Your task to perform on an android device: What's the news in Japan? Image 0: 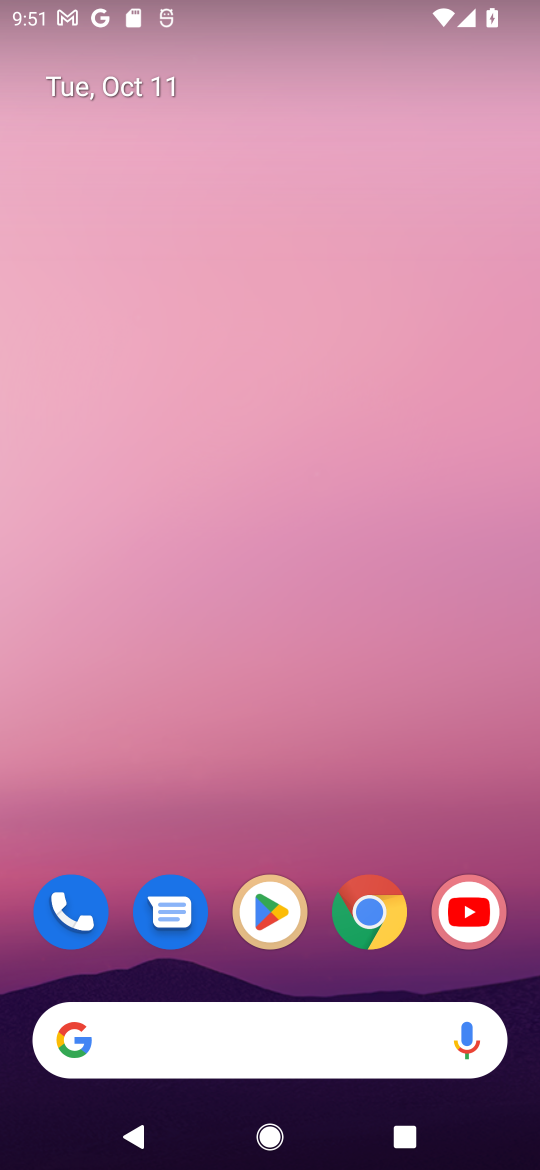
Step 0: click (363, 909)
Your task to perform on an android device: What's the news in Japan? Image 1: 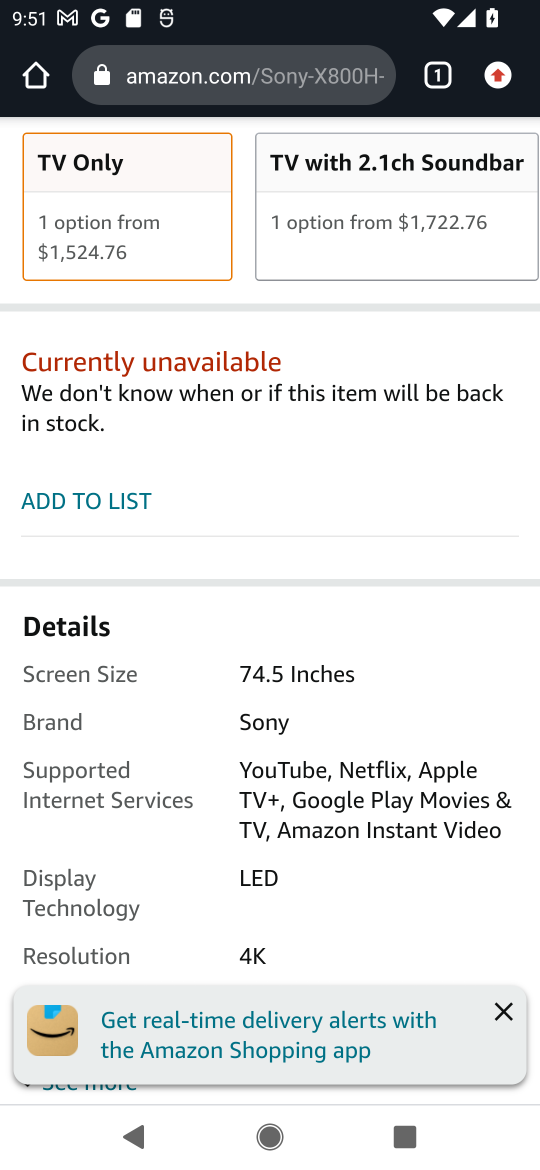
Step 1: click (231, 57)
Your task to perform on an android device: What's the news in Japan? Image 2: 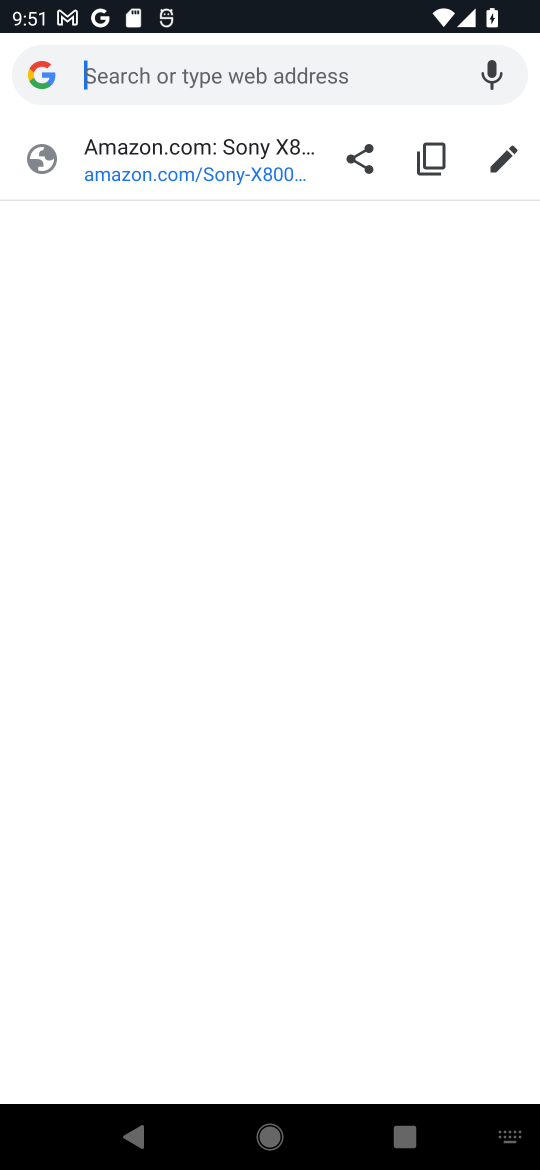
Step 2: type "news in Japan"
Your task to perform on an android device: What's the news in Japan? Image 3: 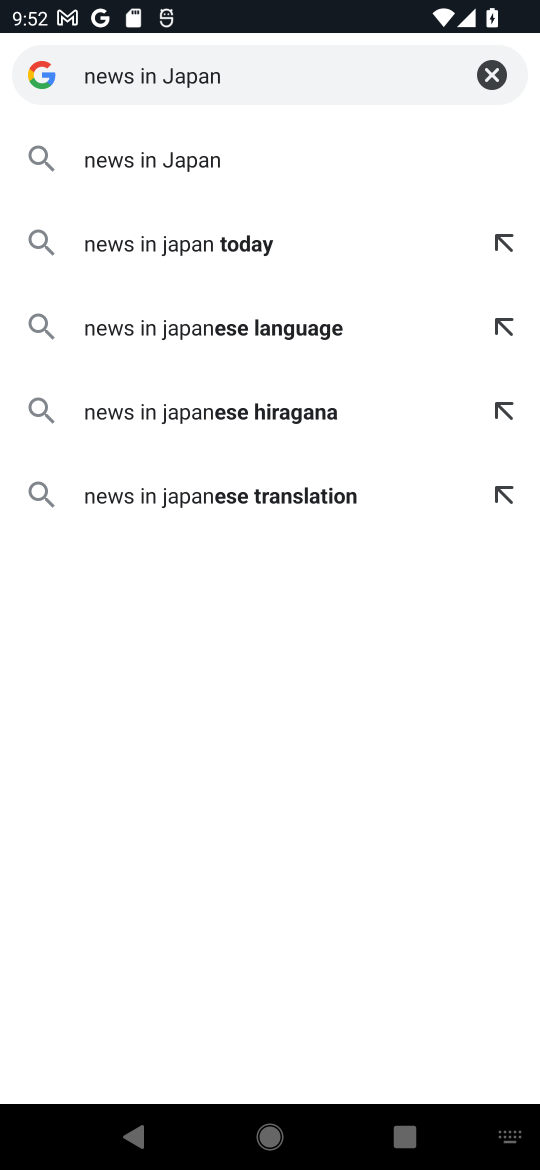
Step 3: click (123, 157)
Your task to perform on an android device: What's the news in Japan? Image 4: 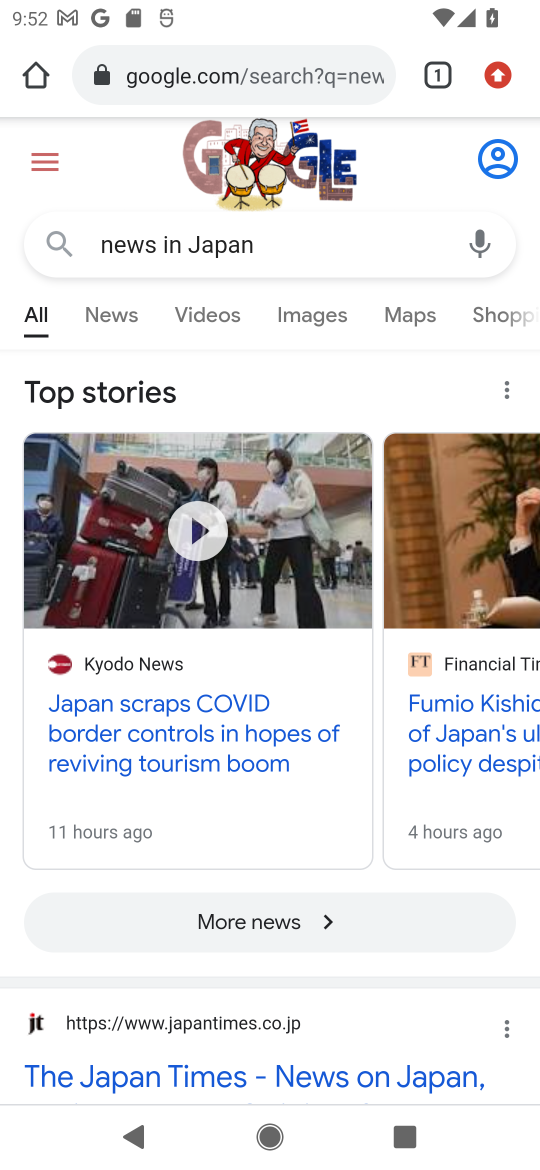
Step 4: drag from (290, 982) to (373, 341)
Your task to perform on an android device: What's the news in Japan? Image 5: 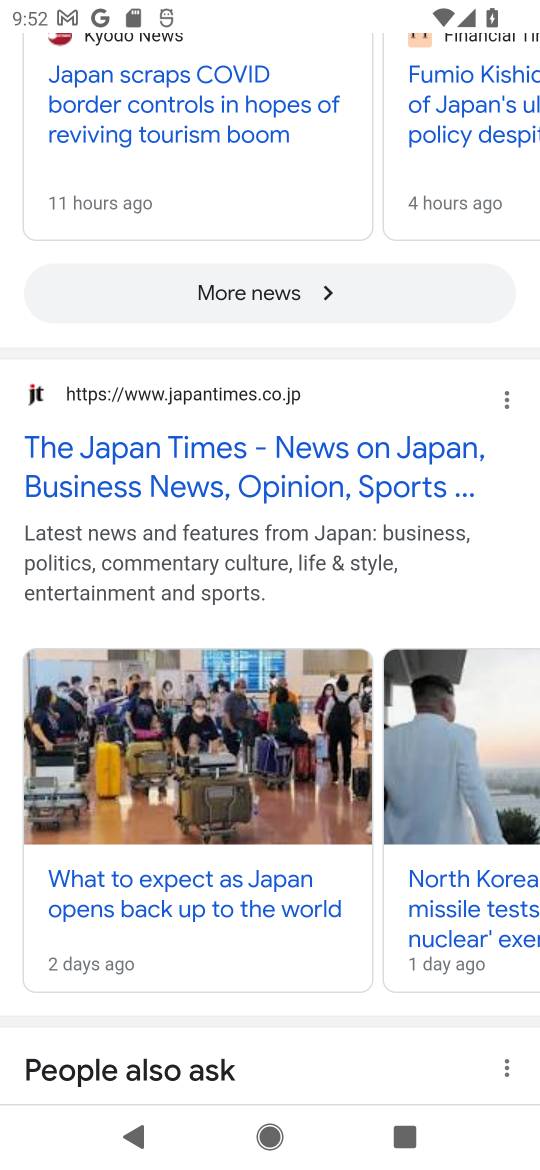
Step 5: click (111, 447)
Your task to perform on an android device: What's the news in Japan? Image 6: 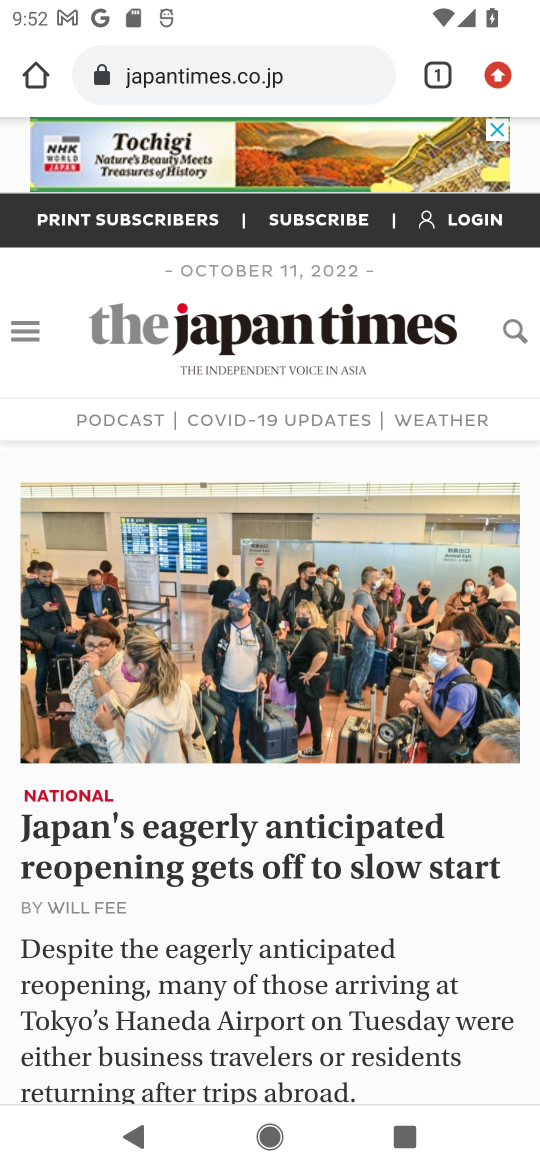
Step 6: drag from (234, 828) to (299, 192)
Your task to perform on an android device: What's the news in Japan? Image 7: 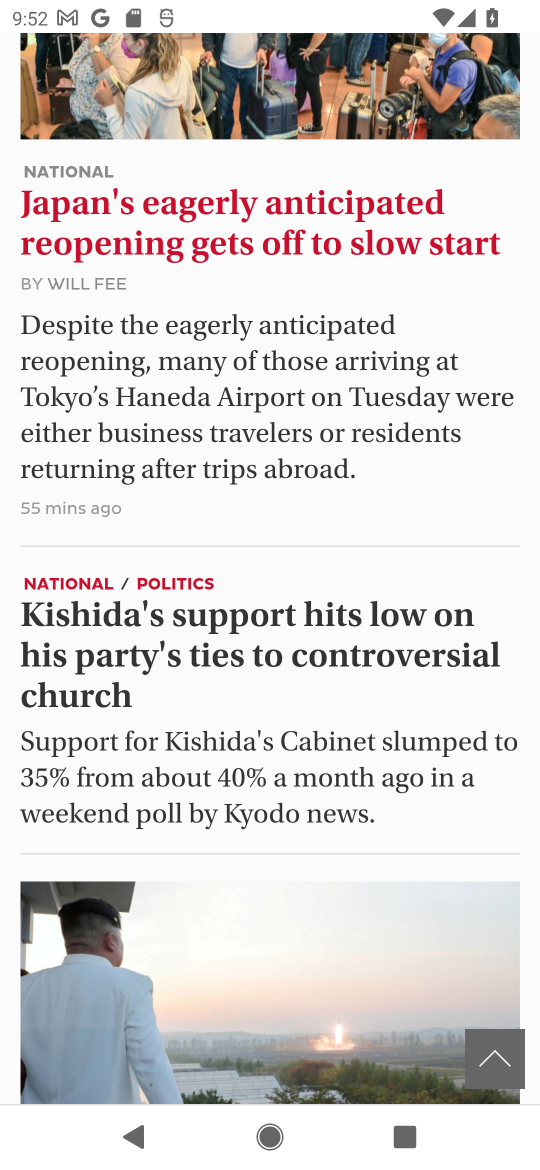
Step 7: click (182, 216)
Your task to perform on an android device: What's the news in Japan? Image 8: 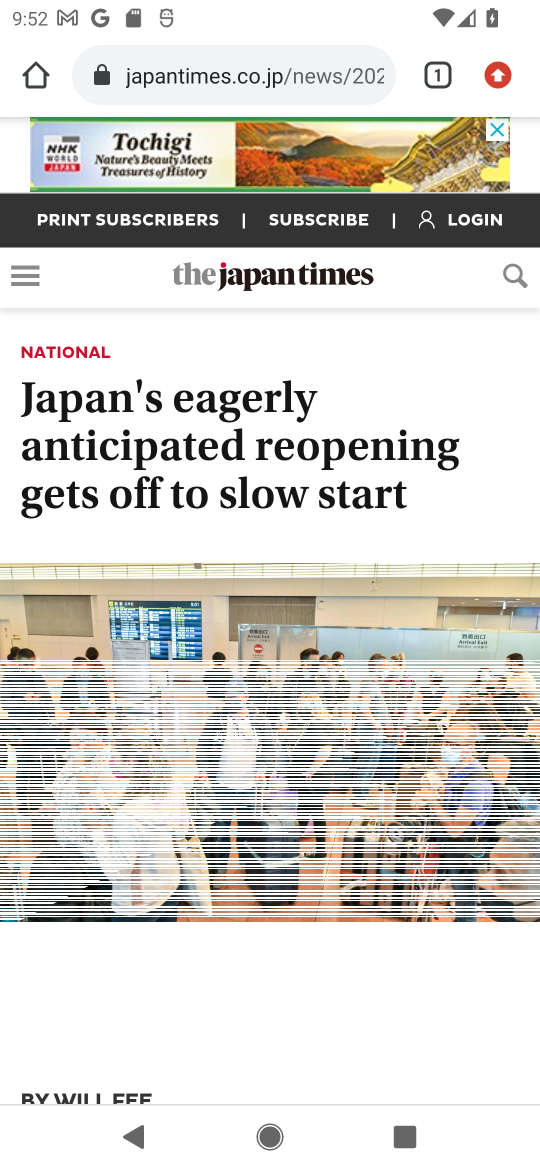
Step 8: task complete